Your task to perform on an android device: What is the news today? Image 0: 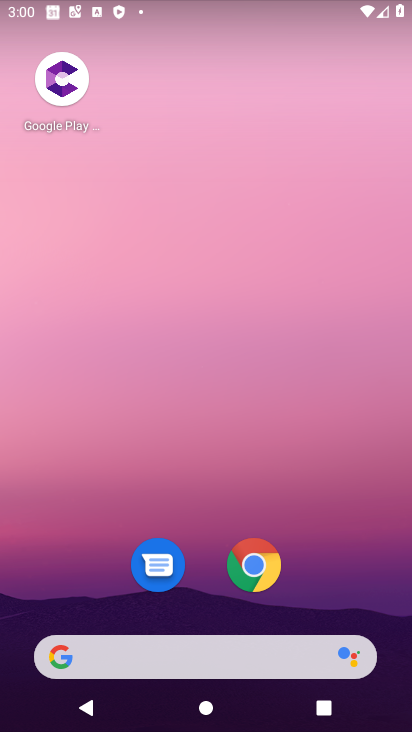
Step 0: drag from (265, 636) to (317, 9)
Your task to perform on an android device: What is the news today? Image 1: 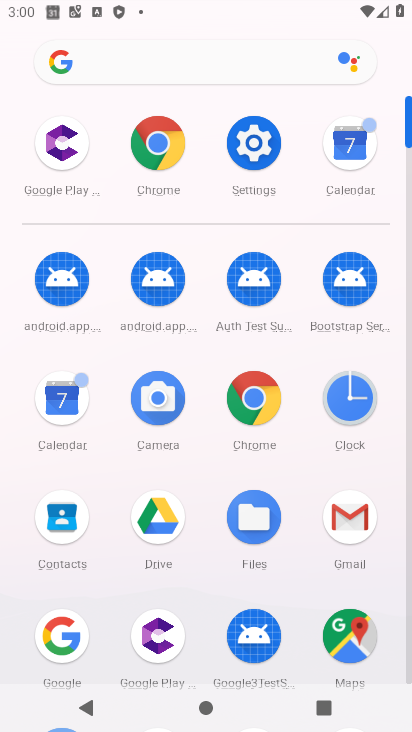
Step 1: click (248, 373)
Your task to perform on an android device: What is the news today? Image 2: 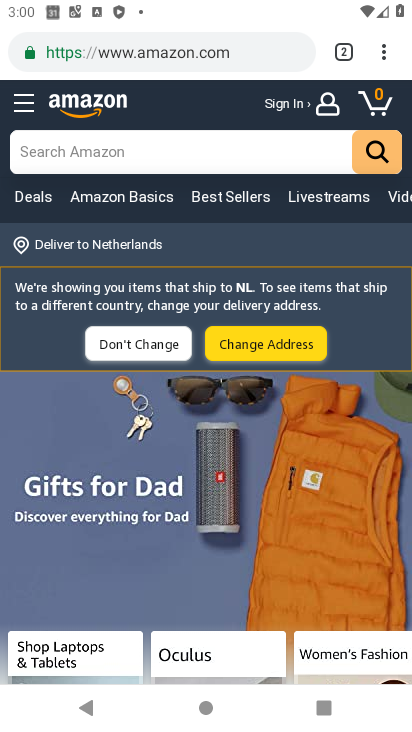
Step 2: click (201, 57)
Your task to perform on an android device: What is the news today? Image 3: 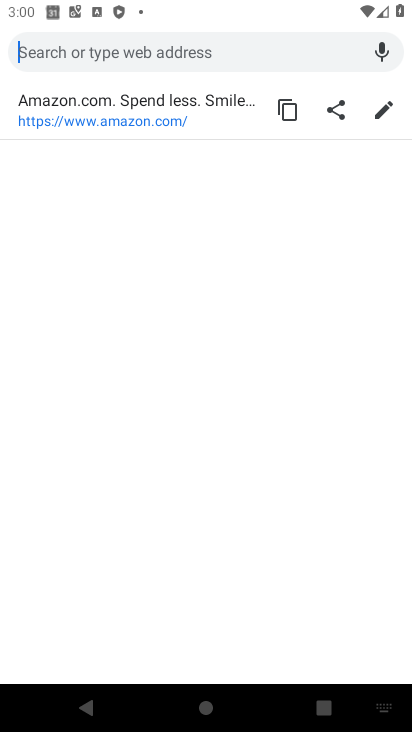
Step 3: type "news today"
Your task to perform on an android device: What is the news today? Image 4: 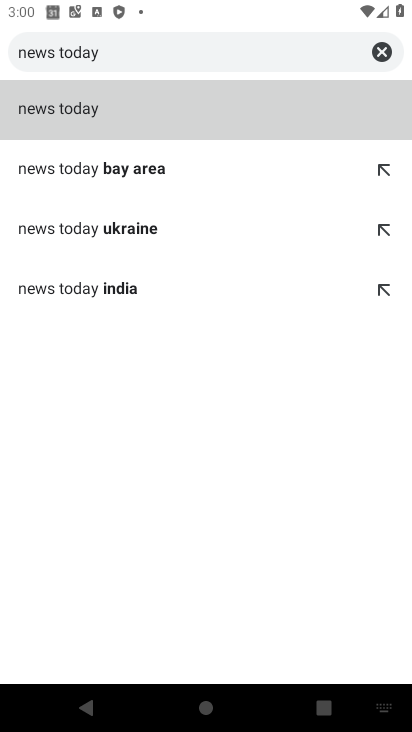
Step 4: click (75, 96)
Your task to perform on an android device: What is the news today? Image 5: 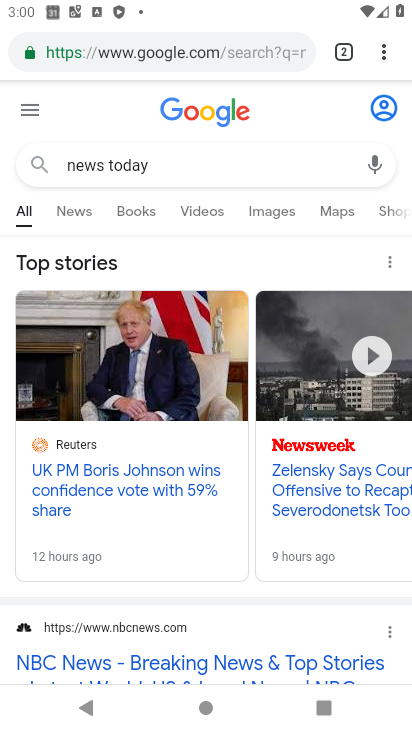
Step 5: task complete